Your task to perform on an android device: Go to Yahoo.com Image 0: 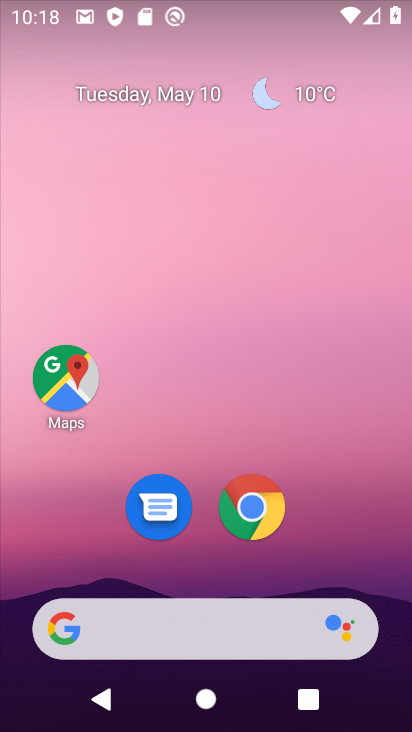
Step 0: click (250, 513)
Your task to perform on an android device: Go to Yahoo.com Image 1: 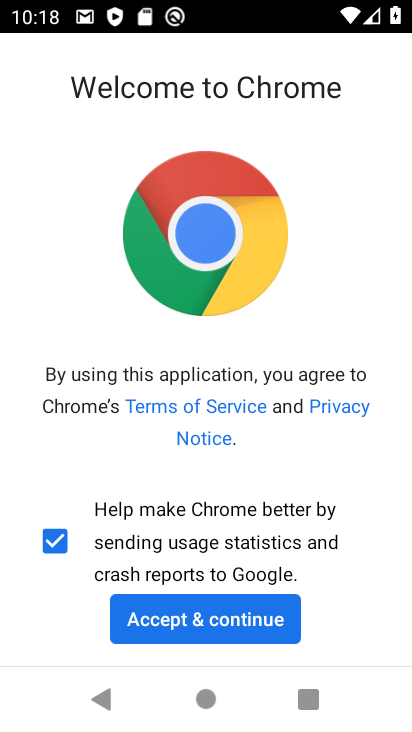
Step 1: click (231, 625)
Your task to perform on an android device: Go to Yahoo.com Image 2: 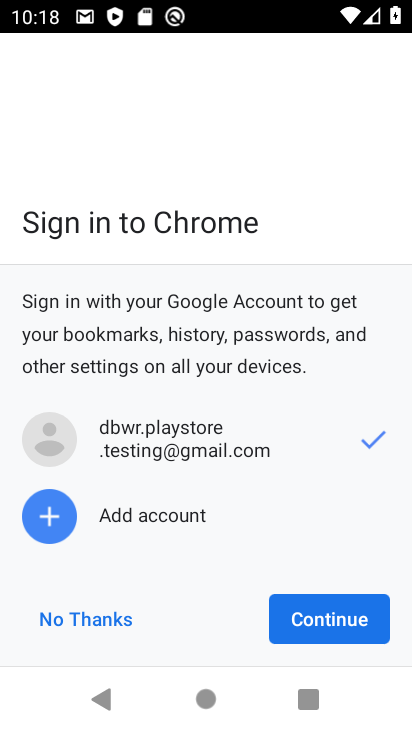
Step 2: click (354, 619)
Your task to perform on an android device: Go to Yahoo.com Image 3: 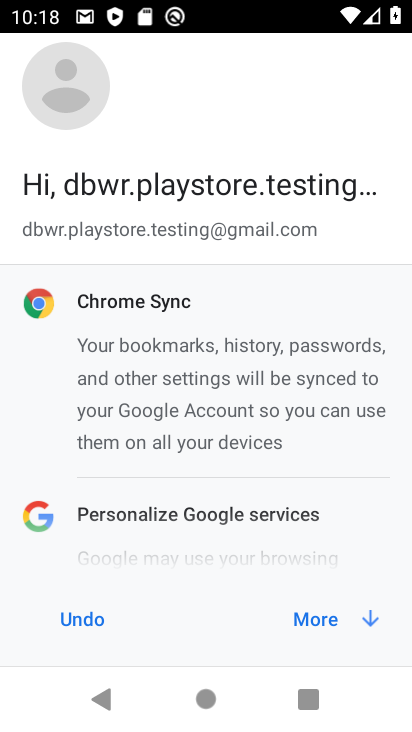
Step 3: click (314, 615)
Your task to perform on an android device: Go to Yahoo.com Image 4: 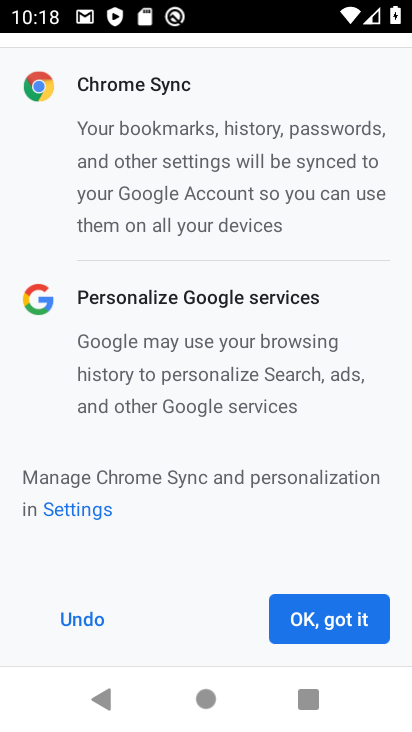
Step 4: click (314, 615)
Your task to perform on an android device: Go to Yahoo.com Image 5: 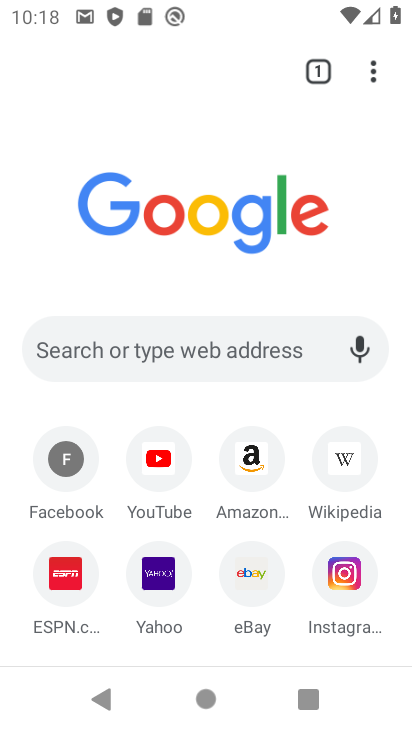
Step 5: click (241, 348)
Your task to perform on an android device: Go to Yahoo.com Image 6: 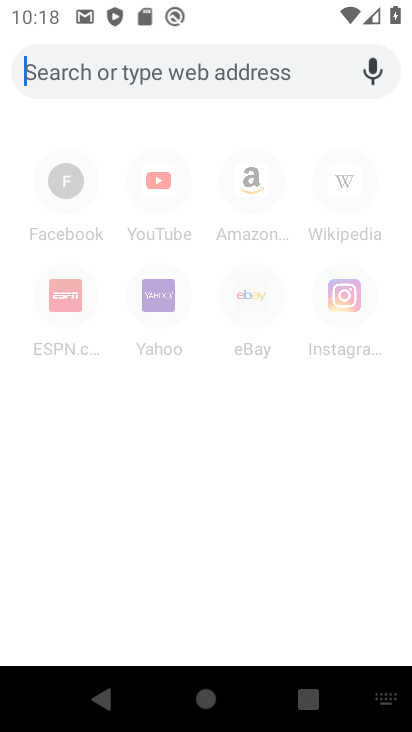
Step 6: type "Yahoo.com"
Your task to perform on an android device: Go to Yahoo.com Image 7: 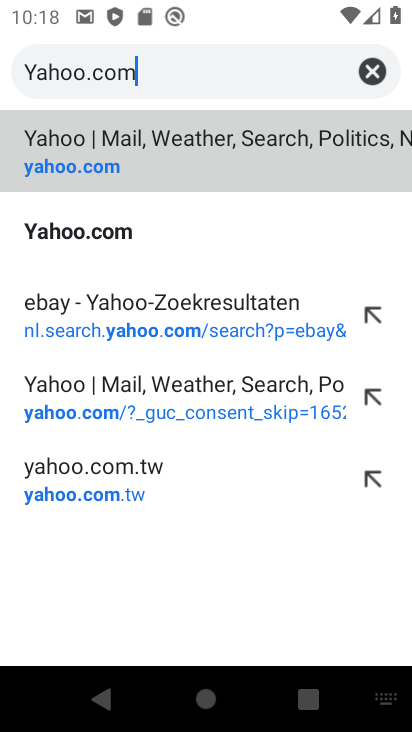
Step 7: click (144, 164)
Your task to perform on an android device: Go to Yahoo.com Image 8: 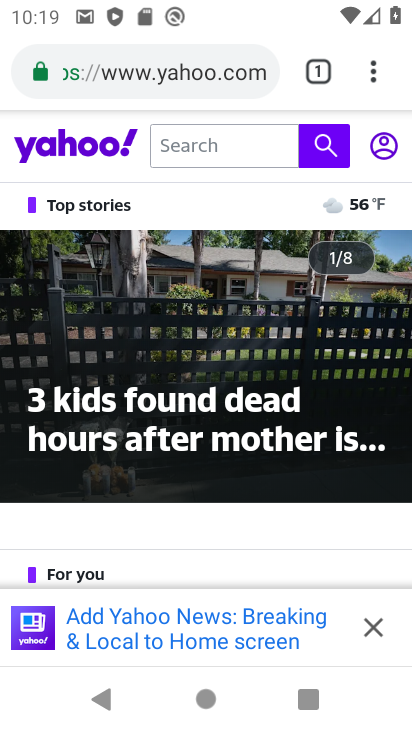
Step 8: task complete